Your task to perform on an android device: Open battery settings Image 0: 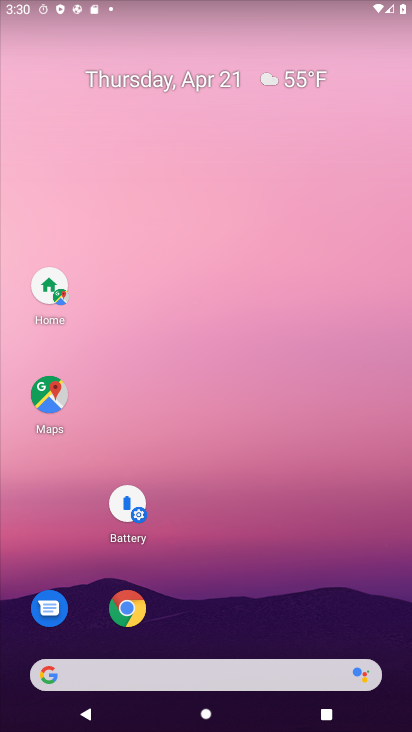
Step 0: drag from (296, 501) to (328, 178)
Your task to perform on an android device: Open battery settings Image 1: 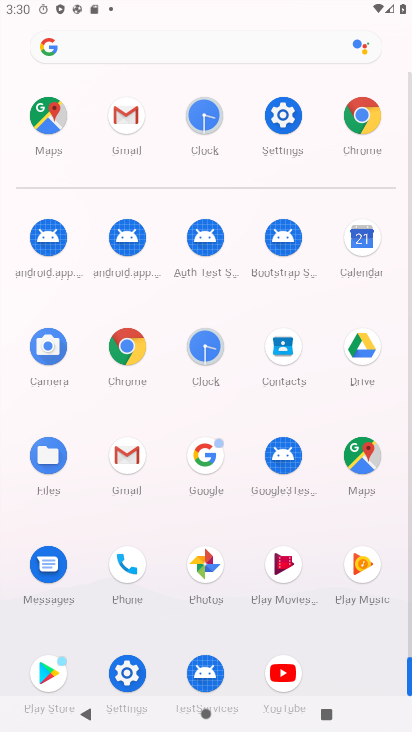
Step 1: click (273, 120)
Your task to perform on an android device: Open battery settings Image 2: 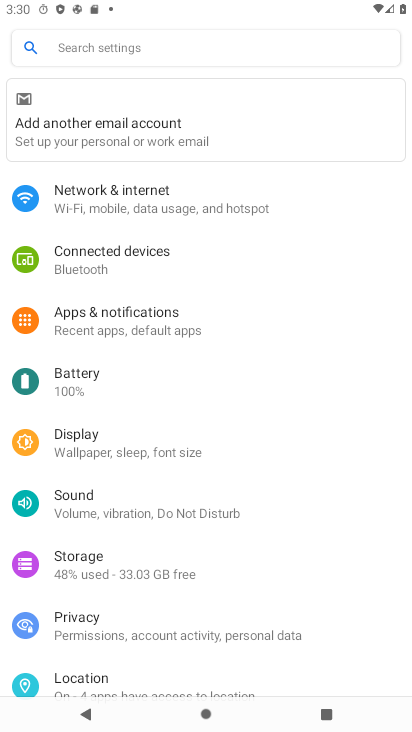
Step 2: click (78, 365)
Your task to perform on an android device: Open battery settings Image 3: 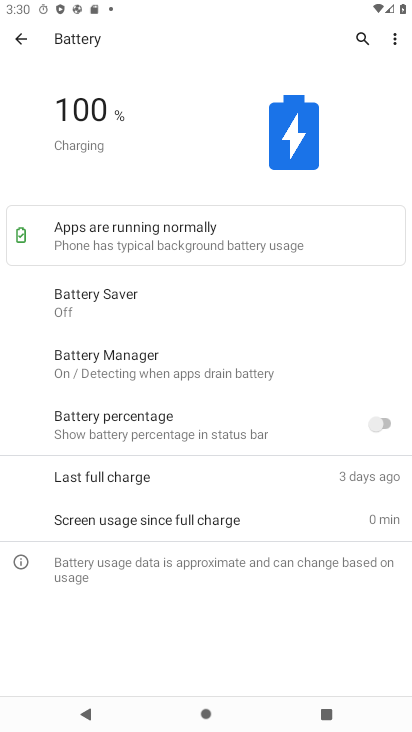
Step 3: task complete